Your task to perform on an android device: Find coffee shops on Maps Image 0: 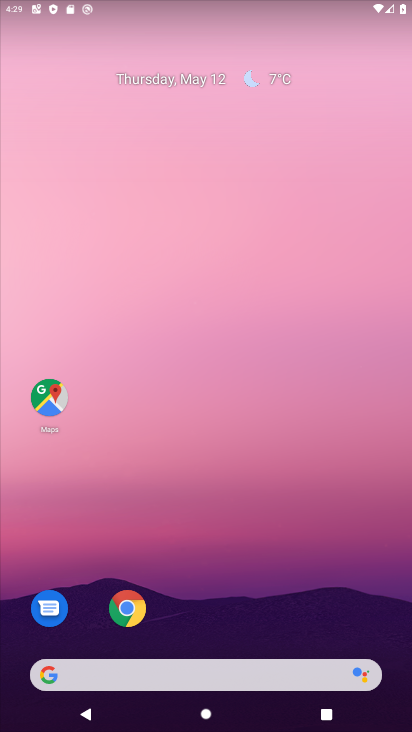
Step 0: click (50, 391)
Your task to perform on an android device: Find coffee shops on Maps Image 1: 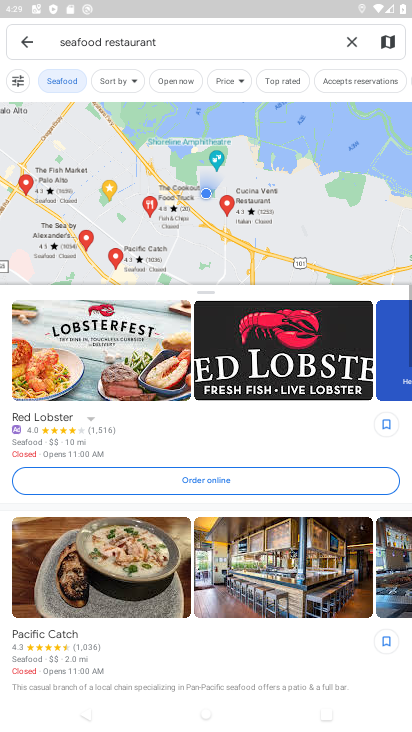
Step 1: click (354, 46)
Your task to perform on an android device: Find coffee shops on Maps Image 2: 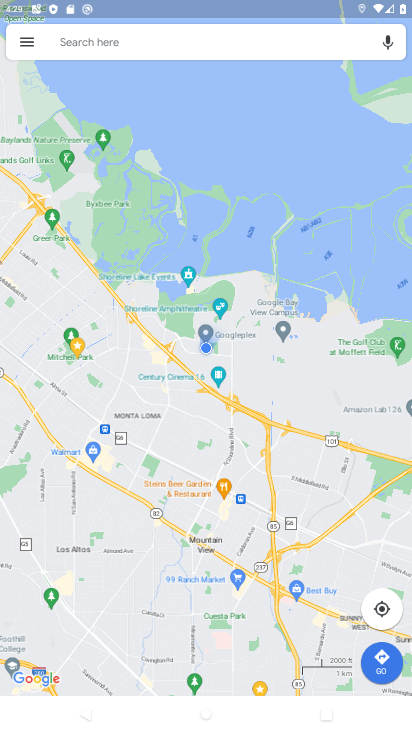
Step 2: click (205, 39)
Your task to perform on an android device: Find coffee shops on Maps Image 3: 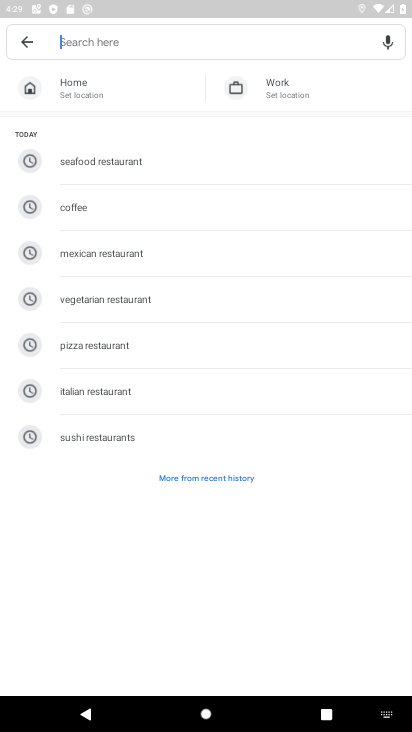
Step 3: click (94, 220)
Your task to perform on an android device: Find coffee shops on Maps Image 4: 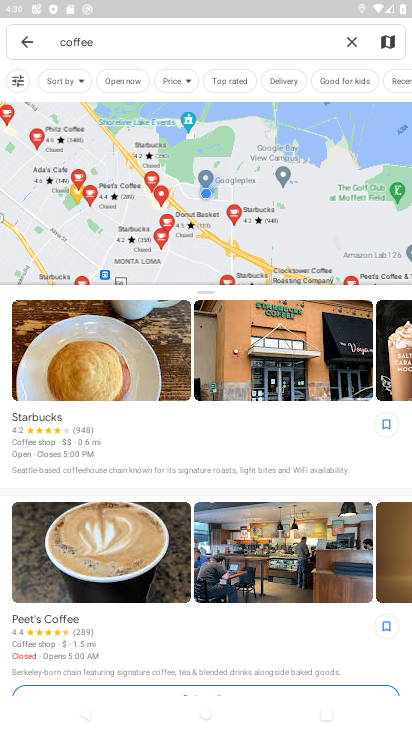
Step 4: task complete